Your task to perform on an android device: Play the last video I watched on Youtube Image 0: 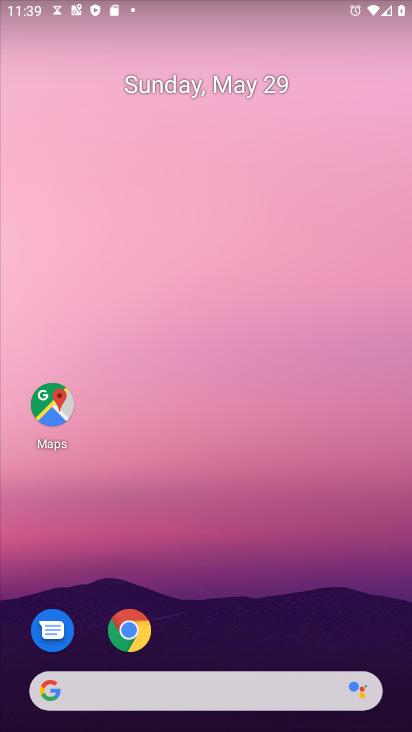
Step 0: drag from (204, 623) to (161, 63)
Your task to perform on an android device: Play the last video I watched on Youtube Image 1: 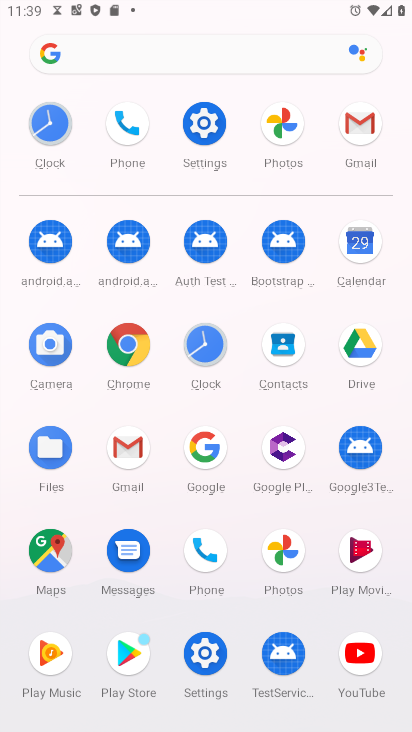
Step 1: click (357, 647)
Your task to perform on an android device: Play the last video I watched on Youtube Image 2: 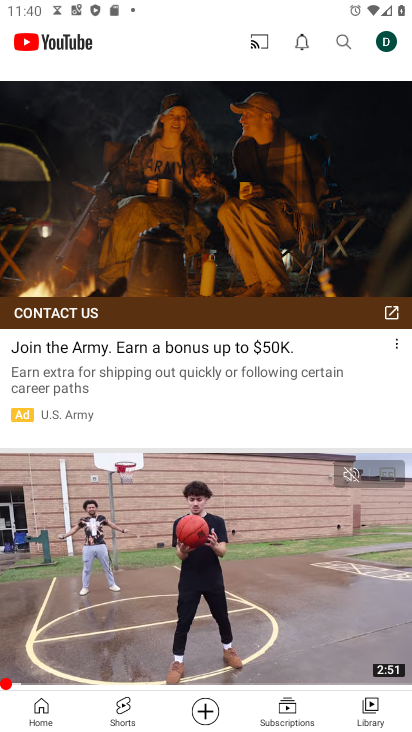
Step 2: click (380, 696)
Your task to perform on an android device: Play the last video I watched on Youtube Image 3: 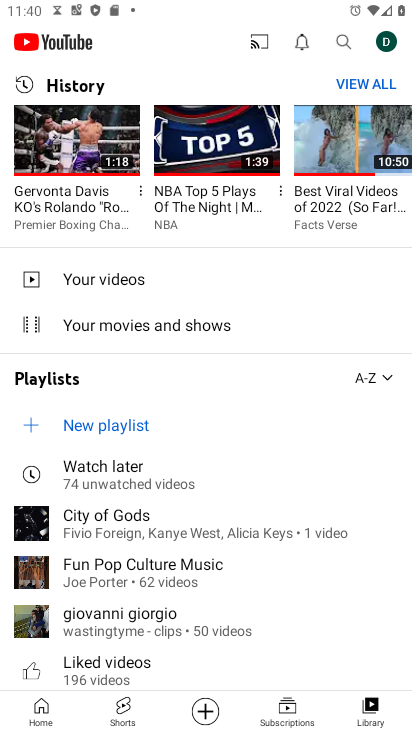
Step 3: click (89, 132)
Your task to perform on an android device: Play the last video I watched on Youtube Image 4: 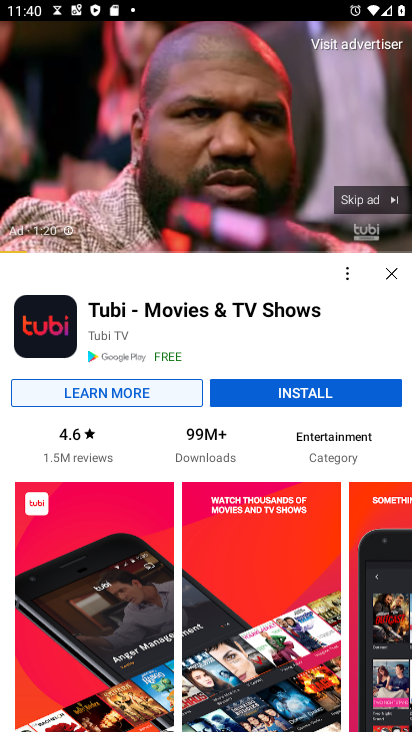
Step 4: click (362, 195)
Your task to perform on an android device: Play the last video I watched on Youtube Image 5: 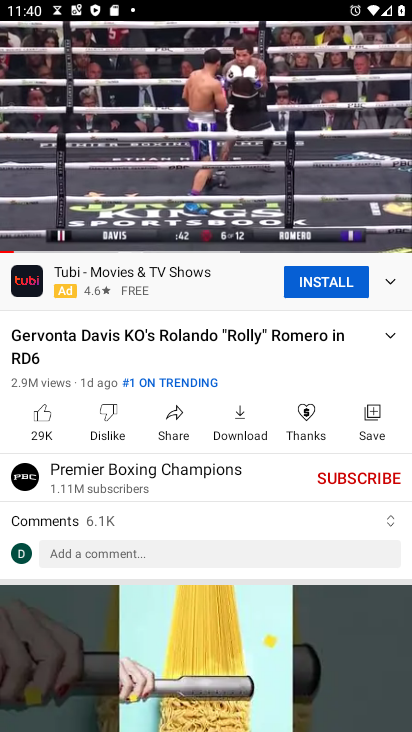
Step 5: task complete